Your task to perform on an android device: Open eBay Image 0: 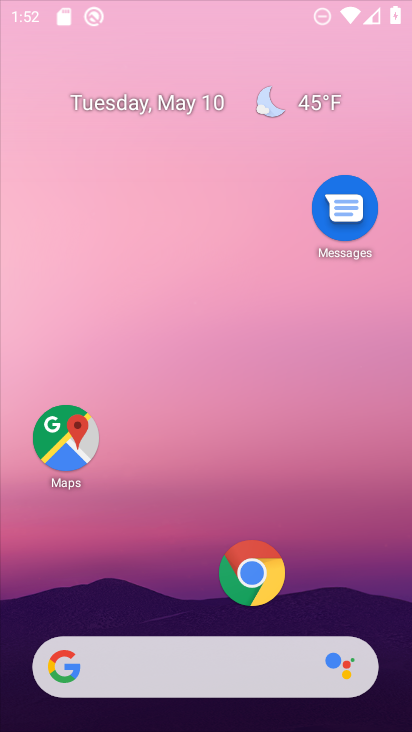
Step 0: drag from (250, 177) to (258, 260)
Your task to perform on an android device: Open eBay Image 1: 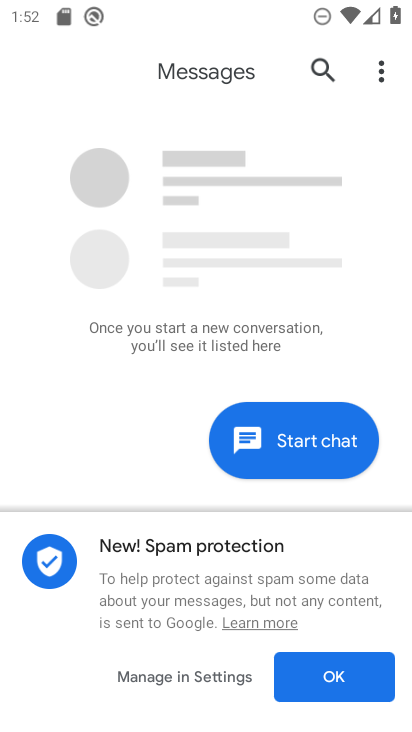
Step 1: press home button
Your task to perform on an android device: Open eBay Image 2: 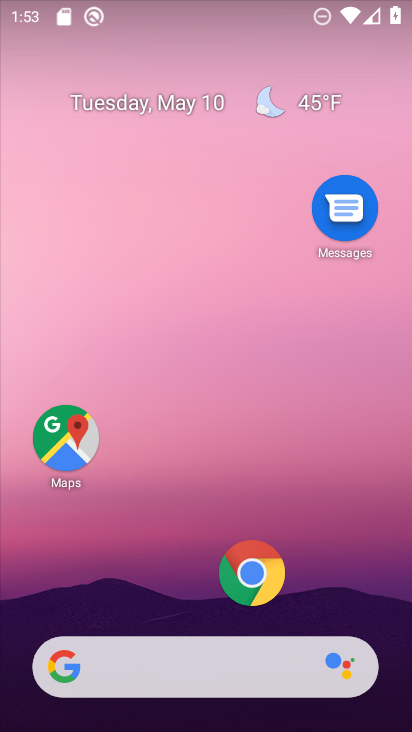
Step 2: drag from (190, 568) to (276, 143)
Your task to perform on an android device: Open eBay Image 3: 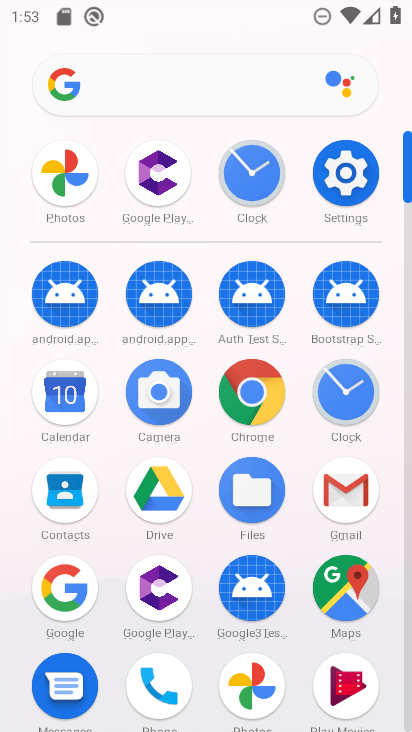
Step 3: click (211, 87)
Your task to perform on an android device: Open eBay Image 4: 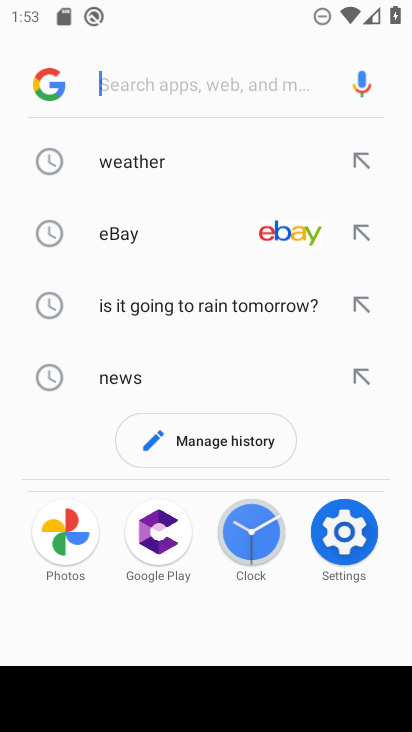
Step 4: click (144, 244)
Your task to perform on an android device: Open eBay Image 5: 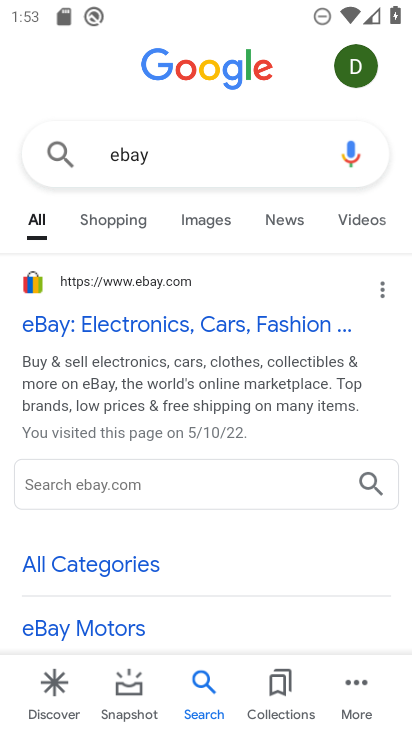
Step 5: click (110, 324)
Your task to perform on an android device: Open eBay Image 6: 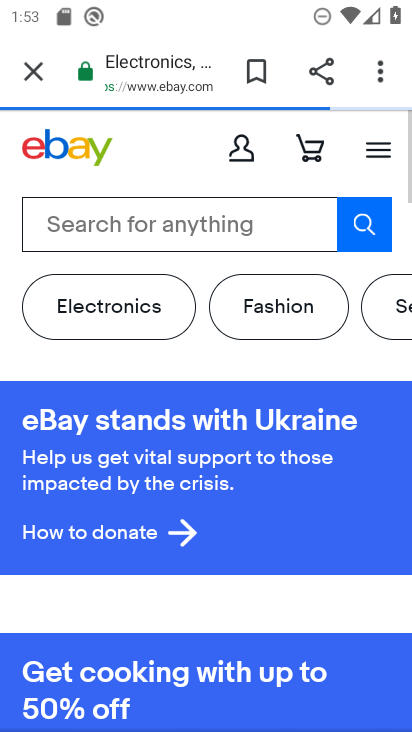
Step 6: task complete